Your task to perform on an android device: turn off translation in the chrome app Image 0: 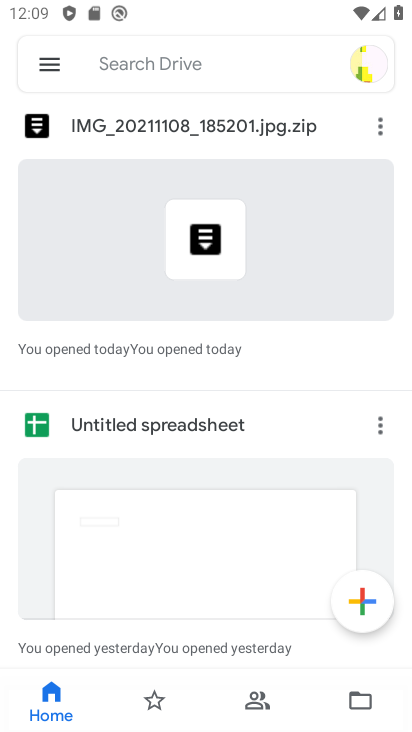
Step 0: press back button
Your task to perform on an android device: turn off translation in the chrome app Image 1: 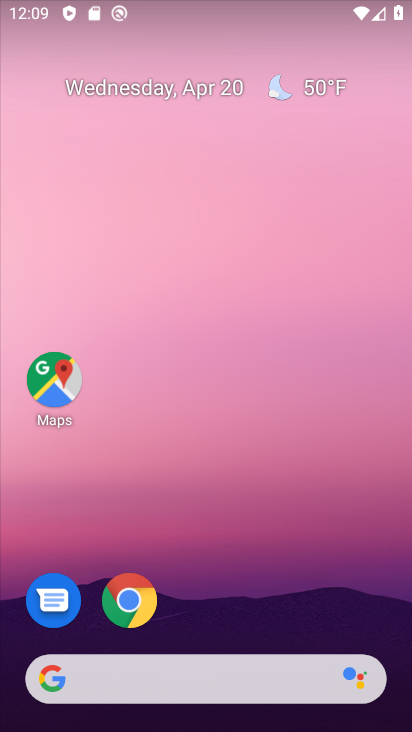
Step 1: click (140, 594)
Your task to perform on an android device: turn off translation in the chrome app Image 2: 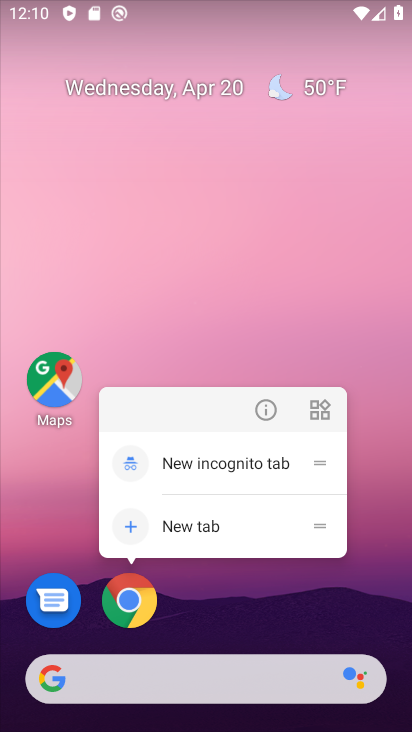
Step 2: click (124, 592)
Your task to perform on an android device: turn off translation in the chrome app Image 3: 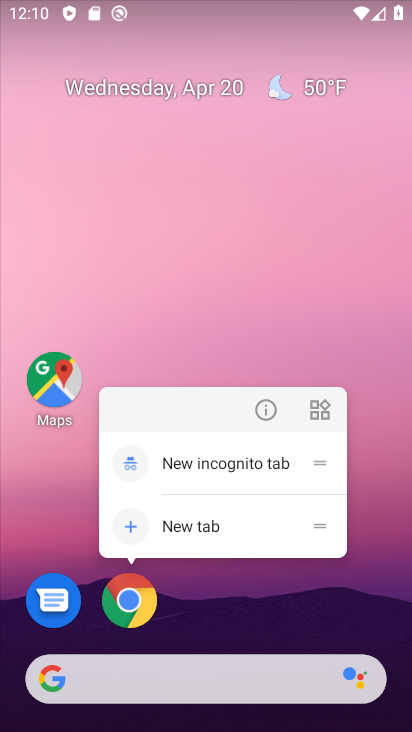
Step 3: click (138, 594)
Your task to perform on an android device: turn off translation in the chrome app Image 4: 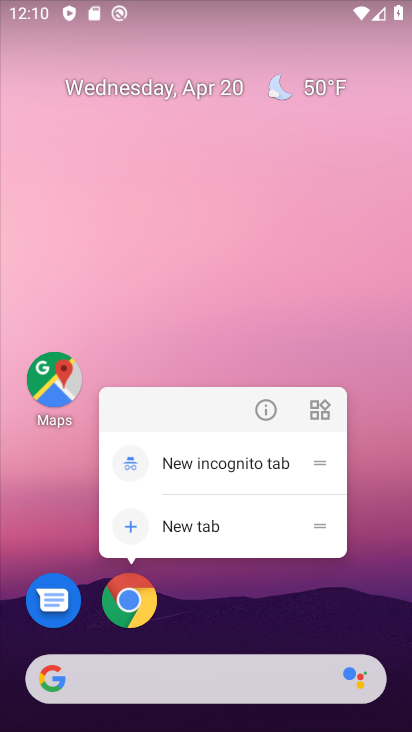
Step 4: click (135, 583)
Your task to perform on an android device: turn off translation in the chrome app Image 5: 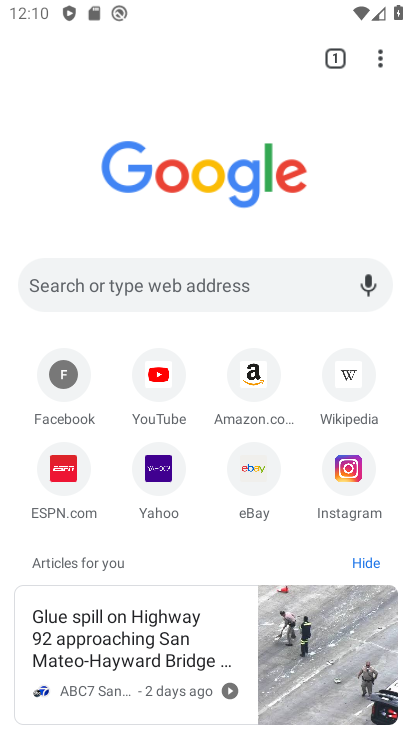
Step 5: click (385, 60)
Your task to perform on an android device: turn off translation in the chrome app Image 6: 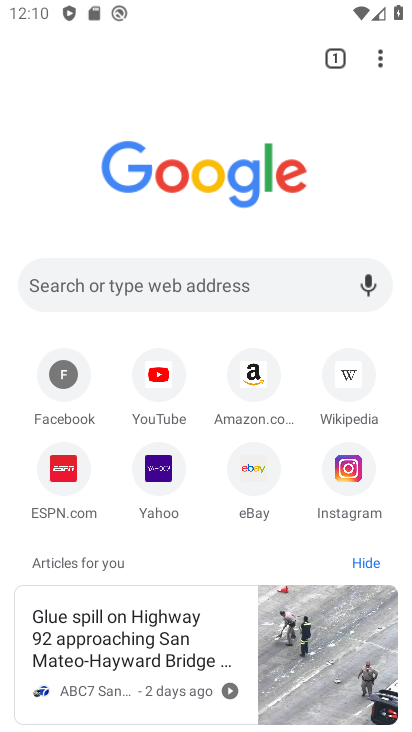
Step 6: drag from (376, 71) to (175, 494)
Your task to perform on an android device: turn off translation in the chrome app Image 7: 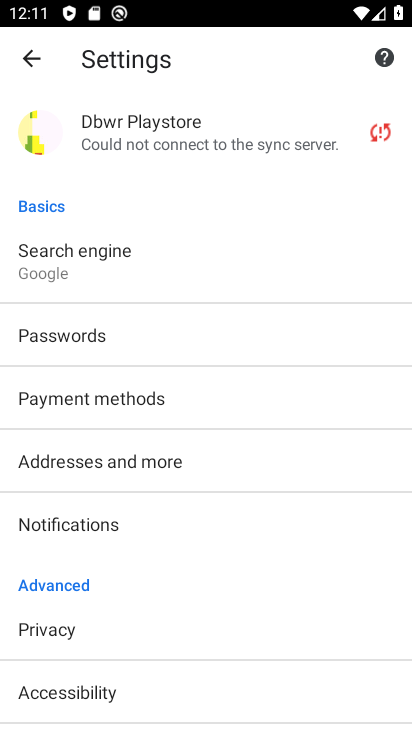
Step 7: drag from (139, 626) to (249, 105)
Your task to perform on an android device: turn off translation in the chrome app Image 8: 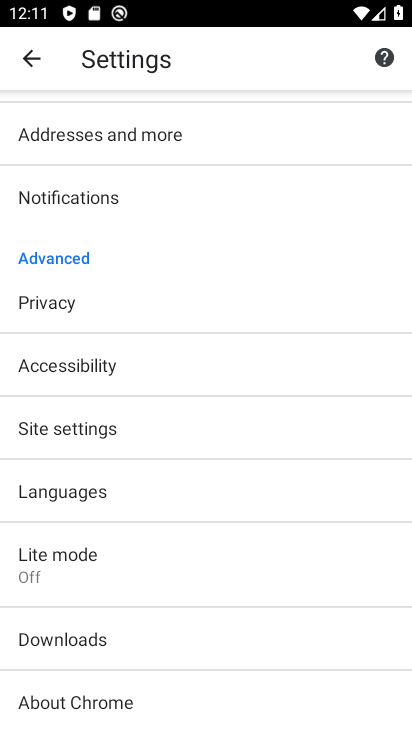
Step 8: click (65, 486)
Your task to perform on an android device: turn off translation in the chrome app Image 9: 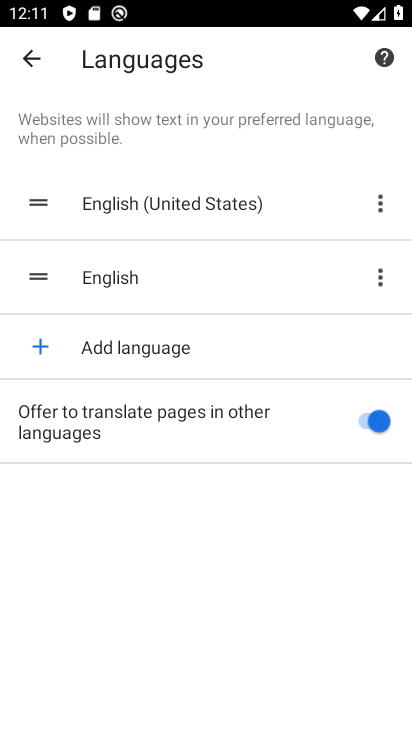
Step 9: click (381, 421)
Your task to perform on an android device: turn off translation in the chrome app Image 10: 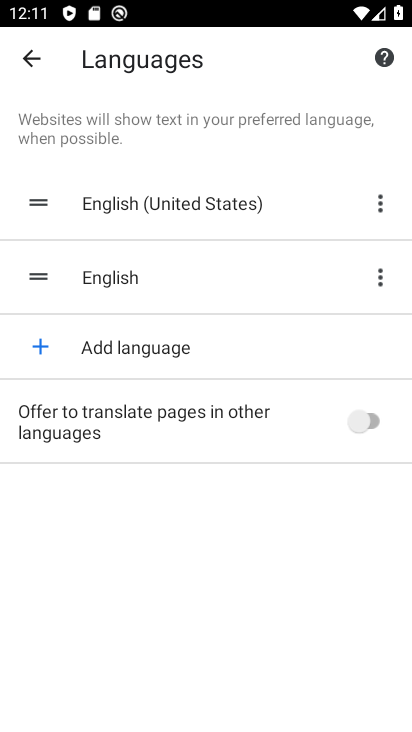
Step 10: task complete